Your task to perform on an android device: Go to wifi settings Image 0: 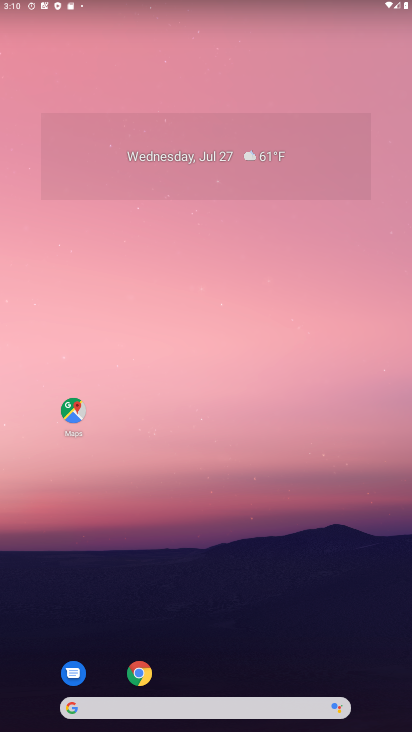
Step 0: drag from (55, 595) to (196, 294)
Your task to perform on an android device: Go to wifi settings Image 1: 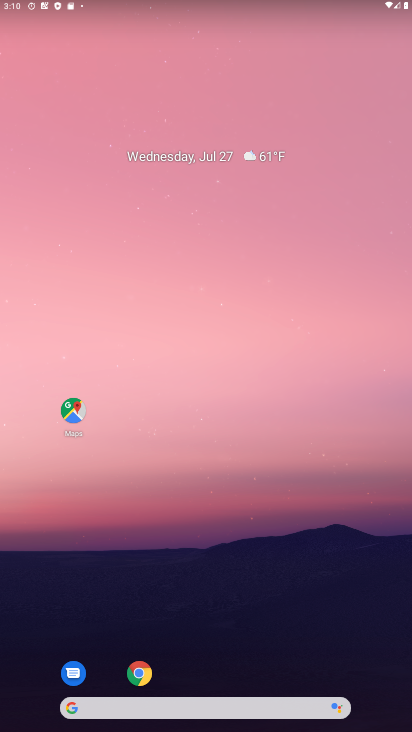
Step 1: drag from (58, 680) to (251, 41)
Your task to perform on an android device: Go to wifi settings Image 2: 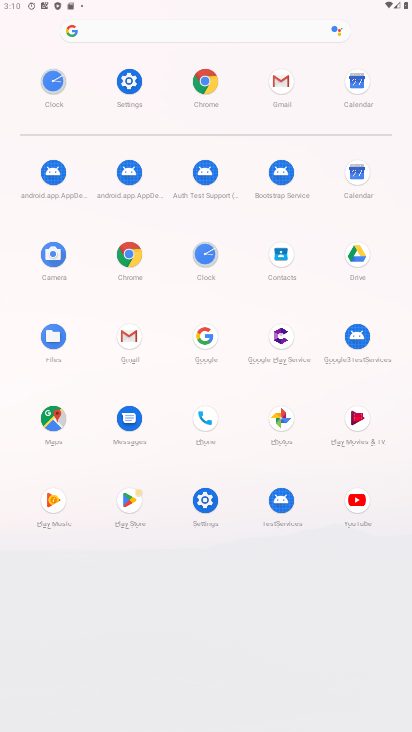
Step 2: click (196, 510)
Your task to perform on an android device: Go to wifi settings Image 3: 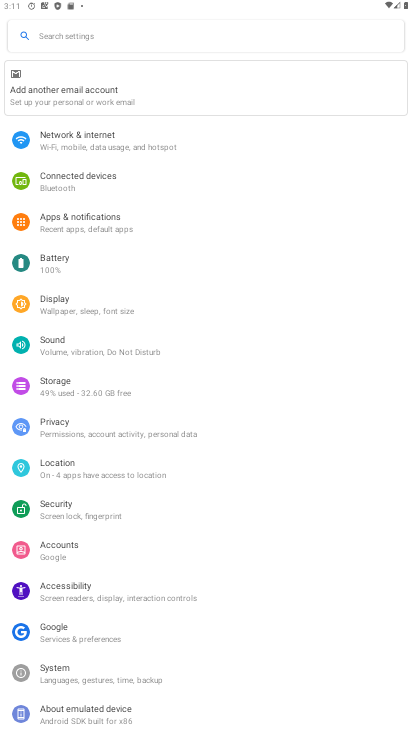
Step 3: click (89, 129)
Your task to perform on an android device: Go to wifi settings Image 4: 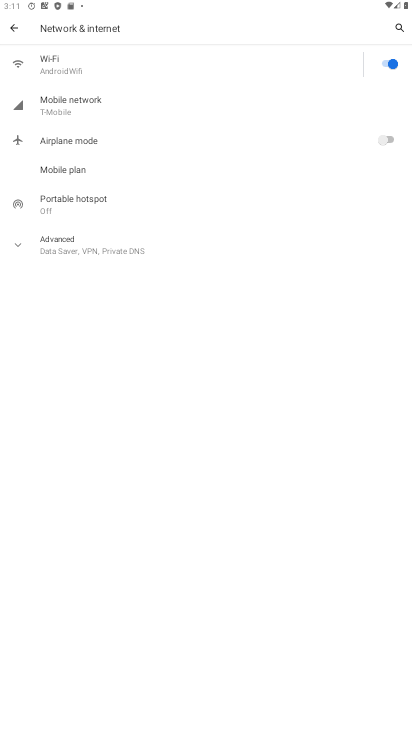
Step 4: task complete